Your task to perform on an android device: Toggle the flashlight Image 0: 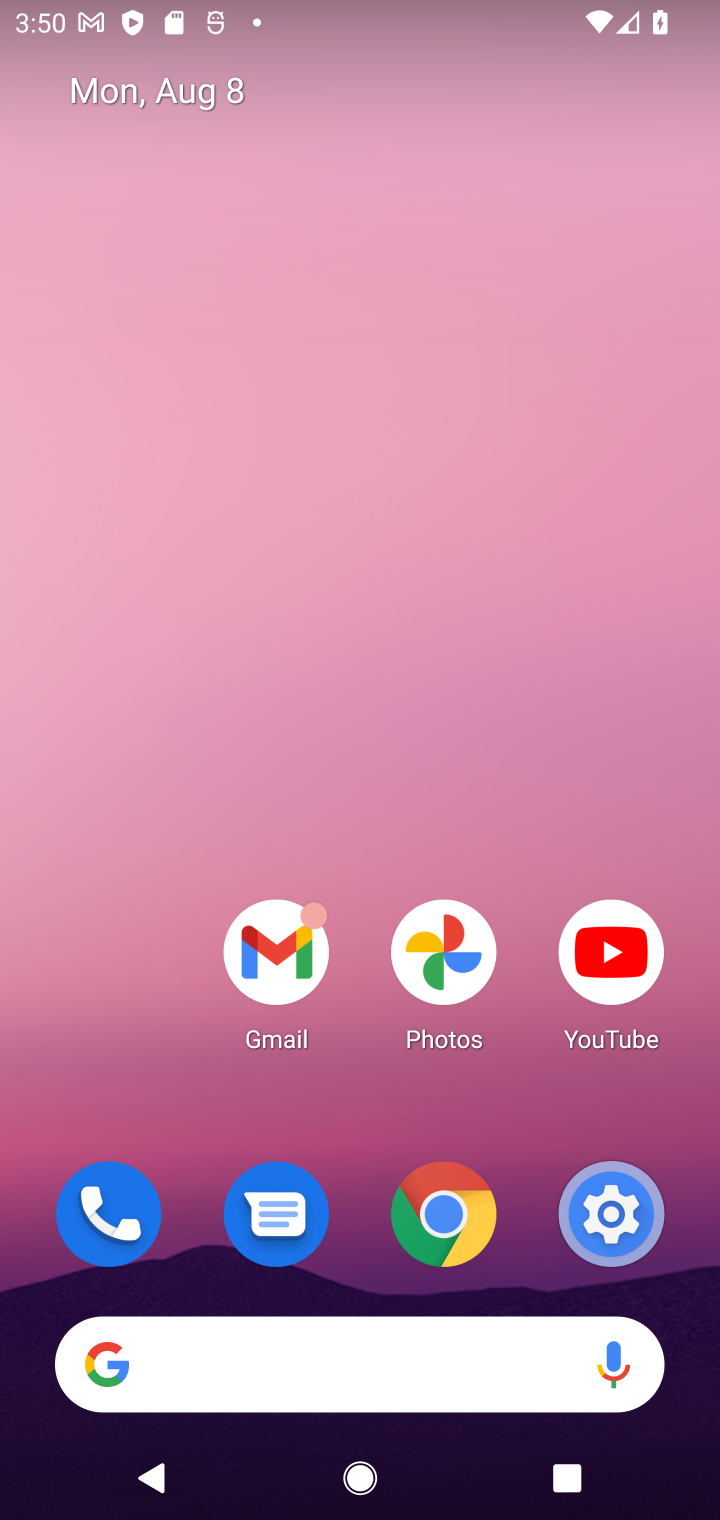
Step 0: drag from (379, 1232) to (393, 168)
Your task to perform on an android device: Toggle the flashlight Image 1: 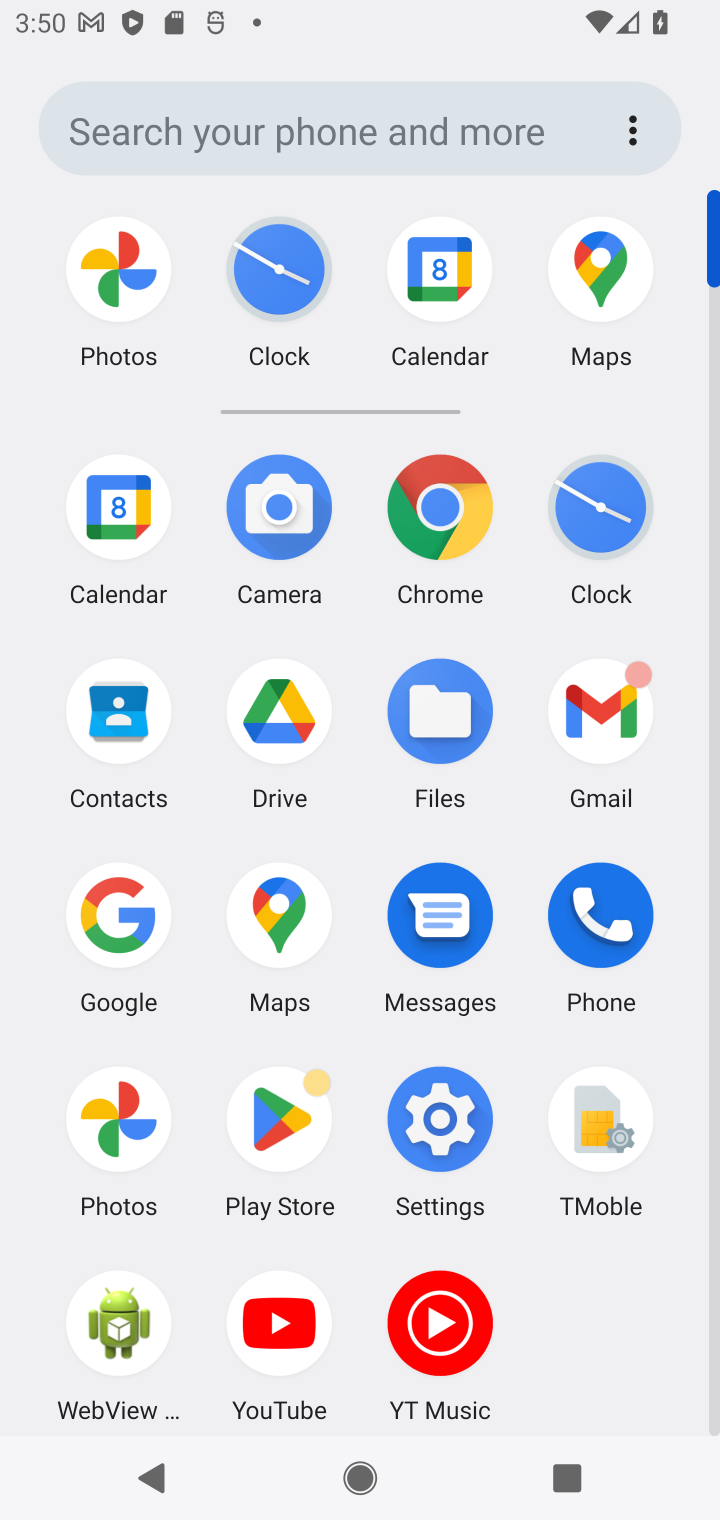
Step 1: click (447, 1122)
Your task to perform on an android device: Toggle the flashlight Image 2: 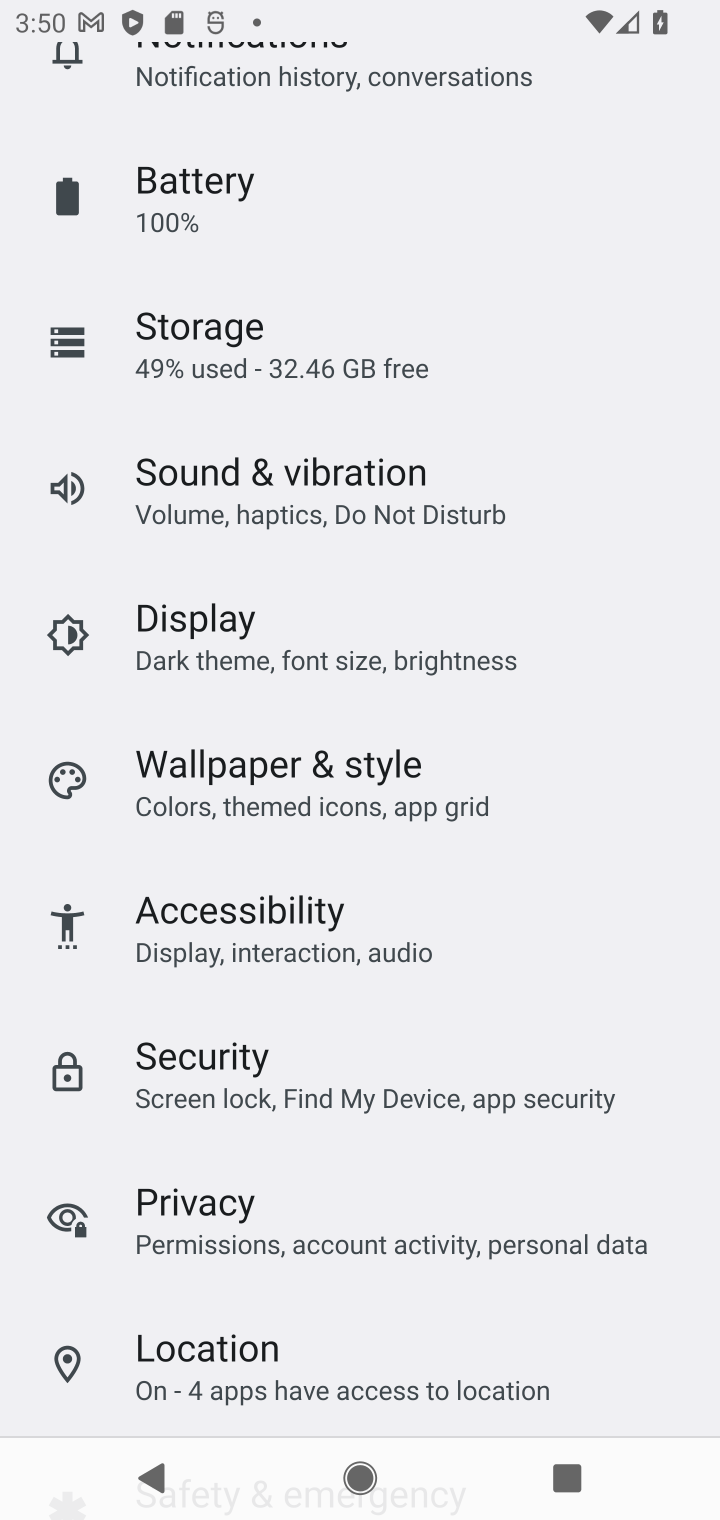
Step 2: task complete